Your task to perform on an android device: set default search engine in the chrome app Image 0: 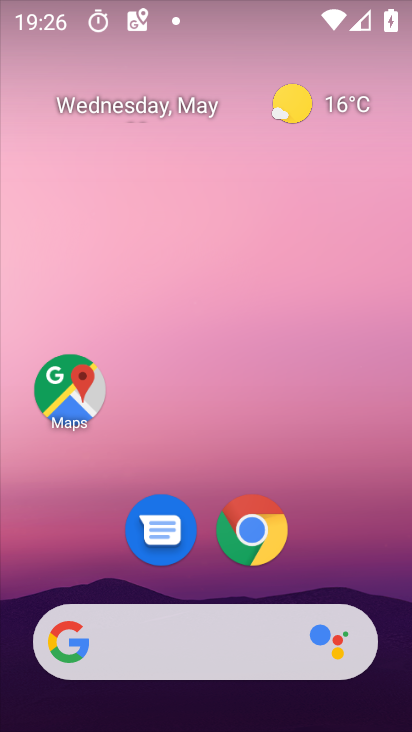
Step 0: press home button
Your task to perform on an android device: set default search engine in the chrome app Image 1: 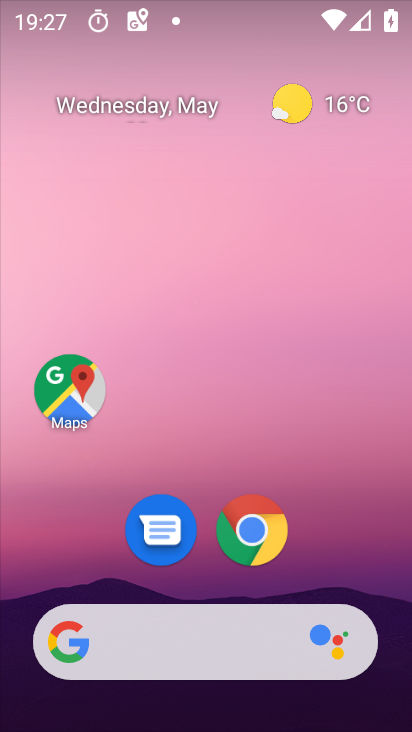
Step 1: click (250, 522)
Your task to perform on an android device: set default search engine in the chrome app Image 2: 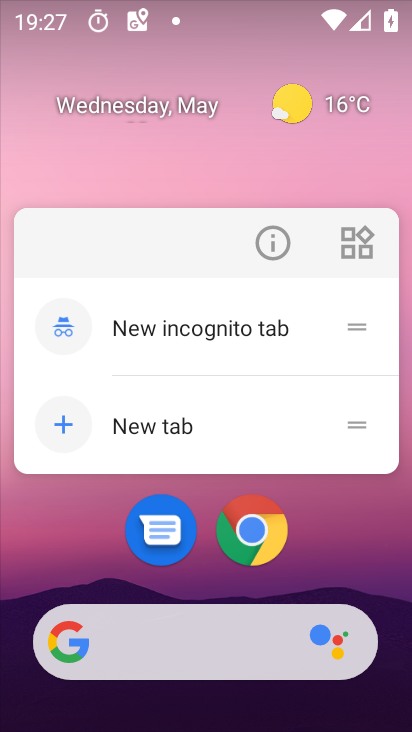
Step 2: click (245, 528)
Your task to perform on an android device: set default search engine in the chrome app Image 3: 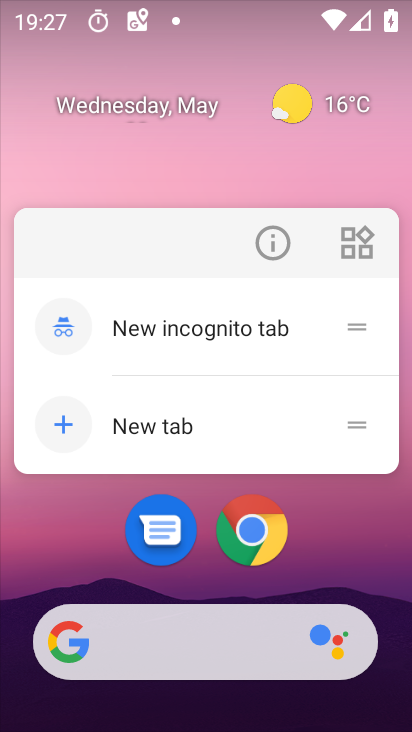
Step 3: click (251, 531)
Your task to perform on an android device: set default search engine in the chrome app Image 4: 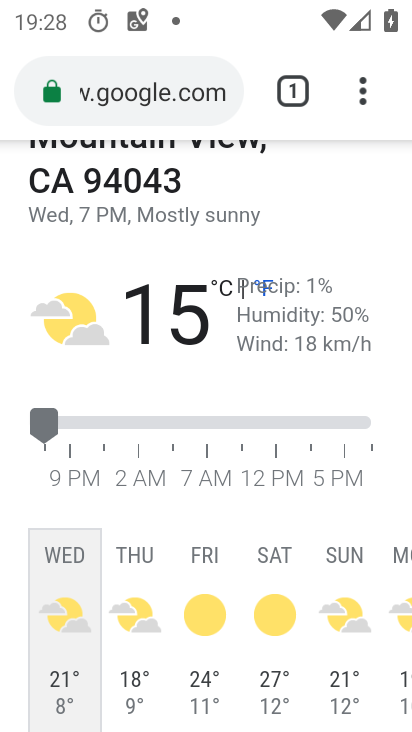
Step 4: click (360, 95)
Your task to perform on an android device: set default search engine in the chrome app Image 5: 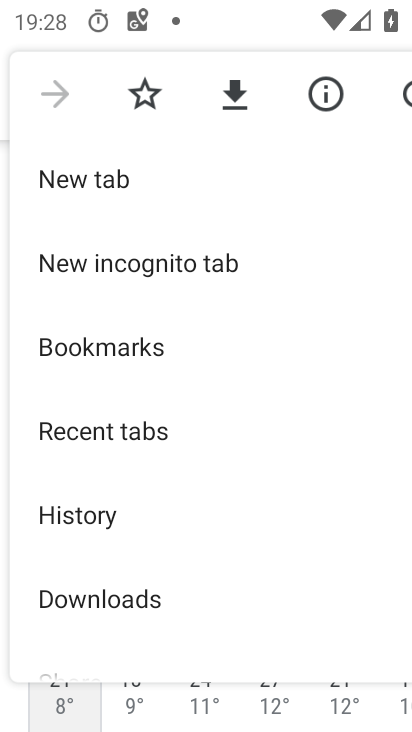
Step 5: drag from (140, 572) to (183, 218)
Your task to perform on an android device: set default search engine in the chrome app Image 6: 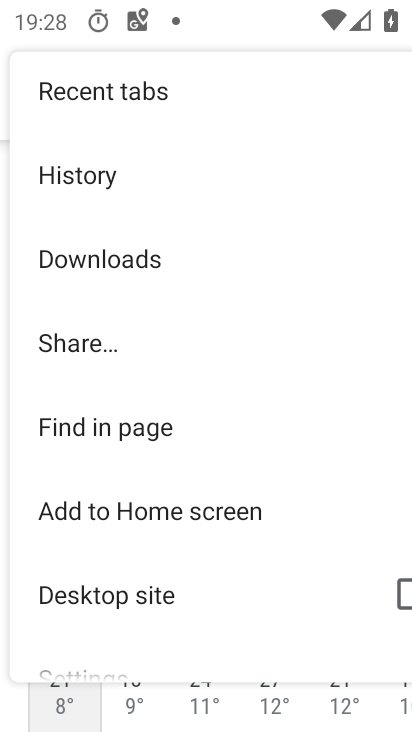
Step 6: drag from (91, 611) to (123, 215)
Your task to perform on an android device: set default search engine in the chrome app Image 7: 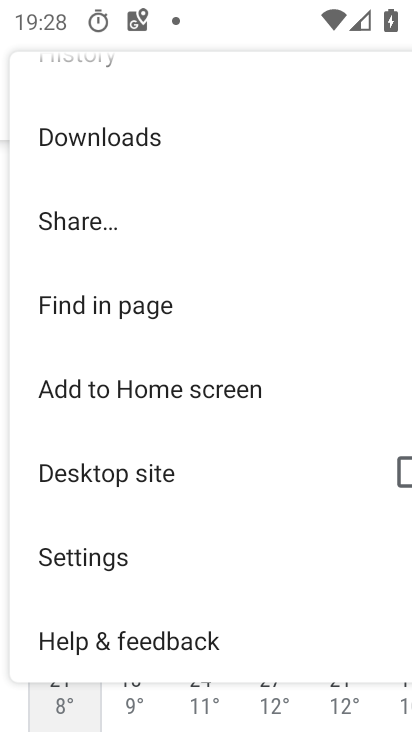
Step 7: click (106, 556)
Your task to perform on an android device: set default search engine in the chrome app Image 8: 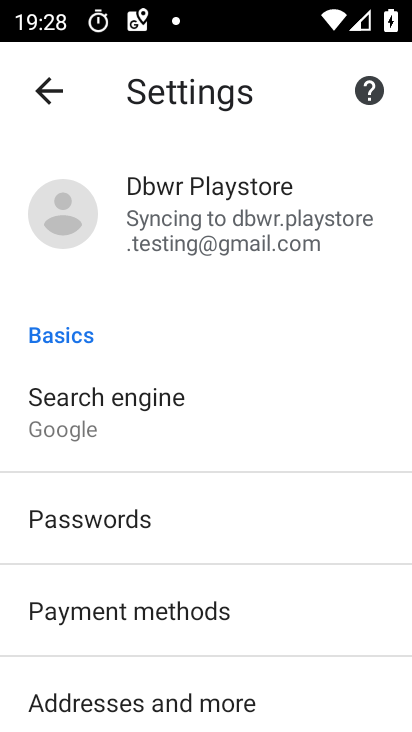
Step 8: click (144, 399)
Your task to perform on an android device: set default search engine in the chrome app Image 9: 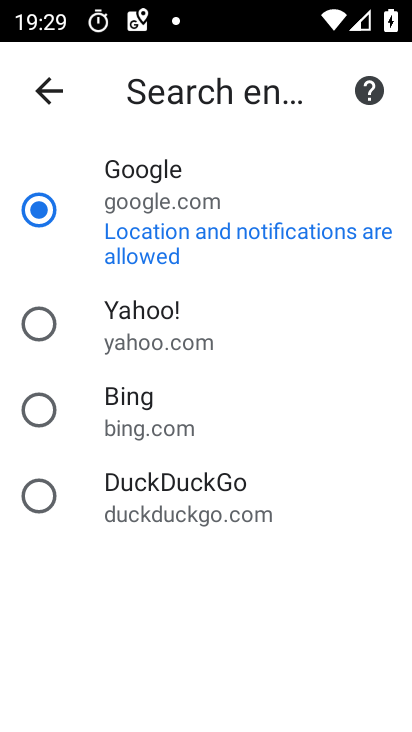
Step 9: task complete